Your task to perform on an android device: find which apps use the phone's location Image 0: 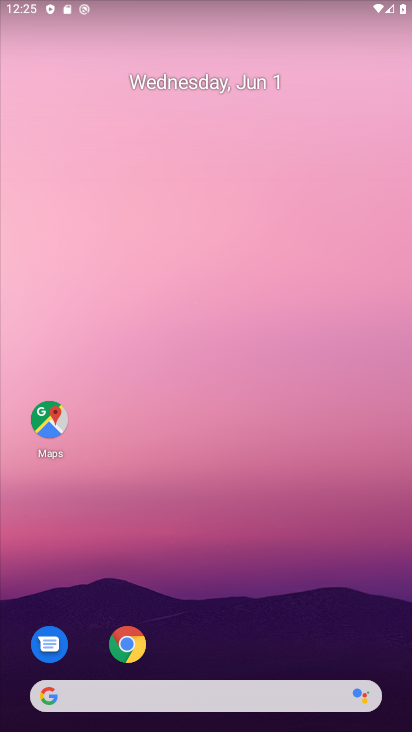
Step 0: press home button
Your task to perform on an android device: find which apps use the phone's location Image 1: 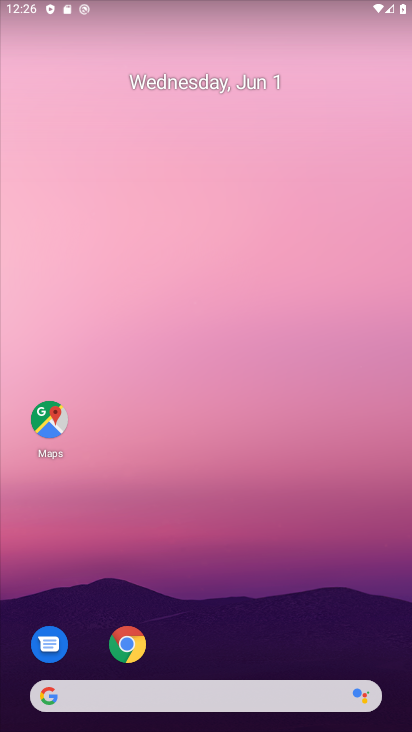
Step 1: drag from (230, 648) to (335, 29)
Your task to perform on an android device: find which apps use the phone's location Image 2: 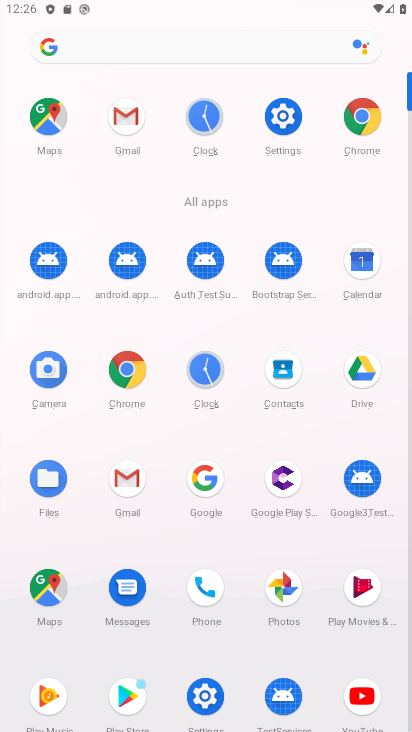
Step 2: click (212, 573)
Your task to perform on an android device: find which apps use the phone's location Image 3: 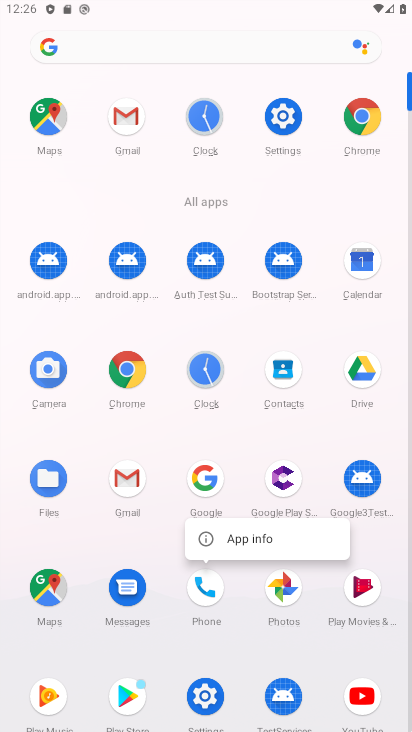
Step 3: click (231, 537)
Your task to perform on an android device: find which apps use the phone's location Image 4: 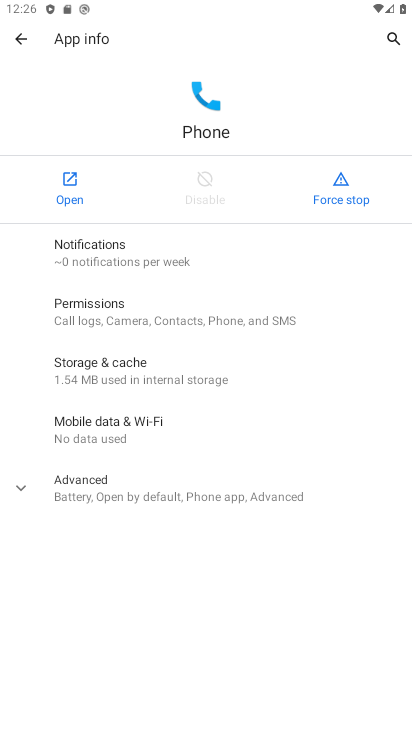
Step 4: click (201, 301)
Your task to perform on an android device: find which apps use the phone's location Image 5: 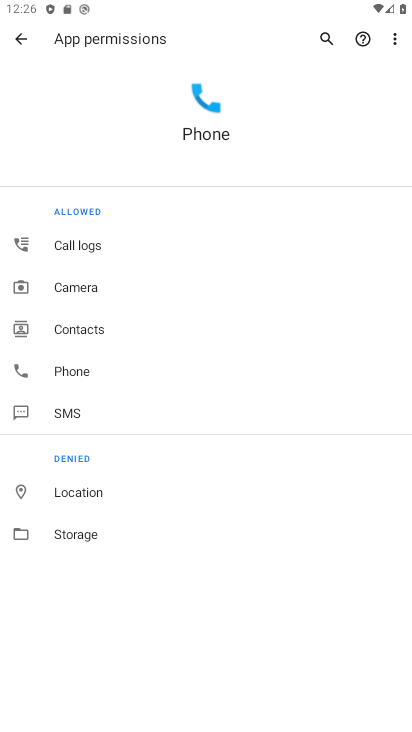
Step 5: click (47, 493)
Your task to perform on an android device: find which apps use the phone's location Image 6: 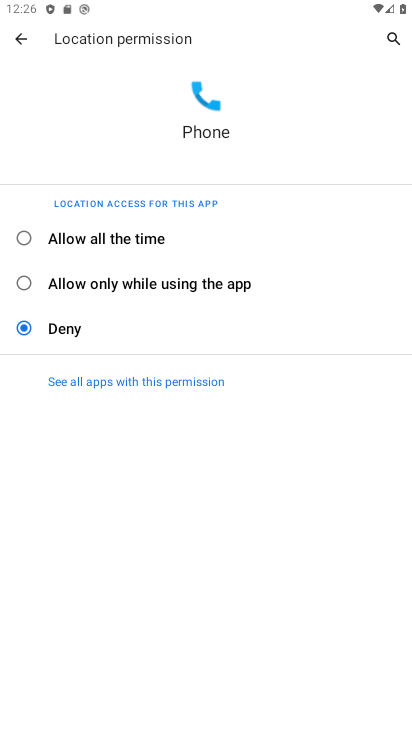
Step 6: click (78, 382)
Your task to perform on an android device: find which apps use the phone's location Image 7: 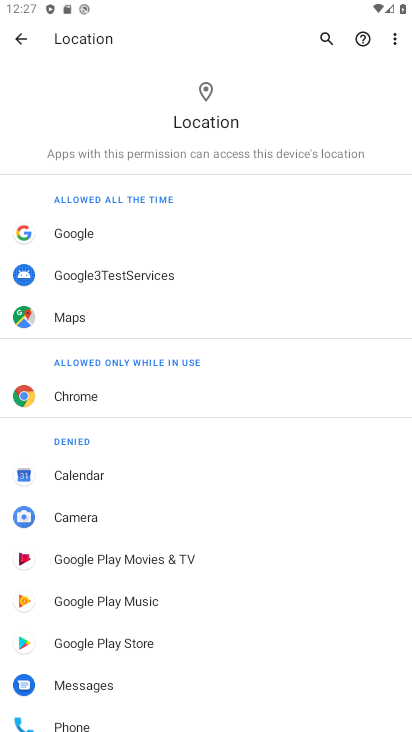
Step 7: task complete